Your task to perform on an android device: check android version Image 0: 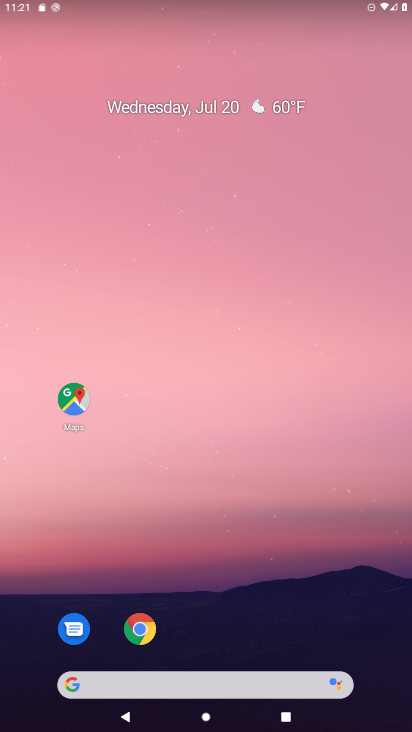
Step 0: drag from (244, 615) to (270, 72)
Your task to perform on an android device: check android version Image 1: 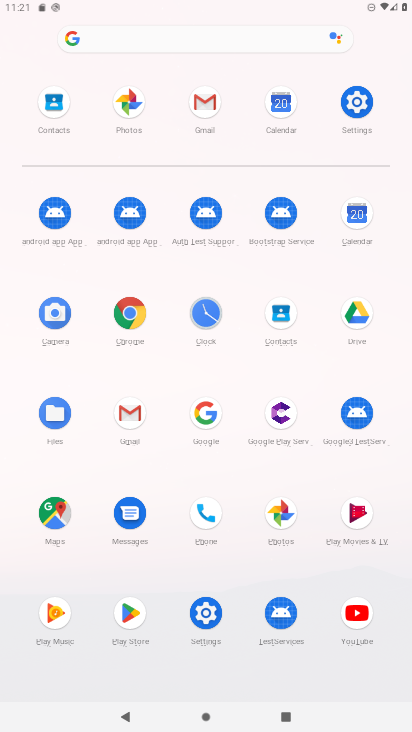
Step 1: click (368, 104)
Your task to perform on an android device: check android version Image 2: 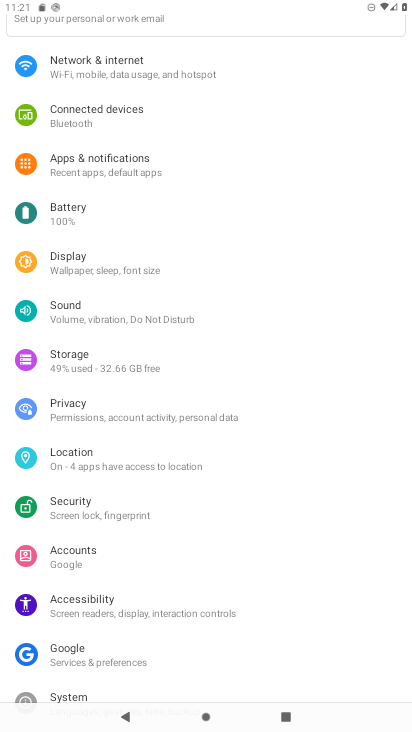
Step 2: drag from (154, 637) to (171, 1)
Your task to perform on an android device: check android version Image 3: 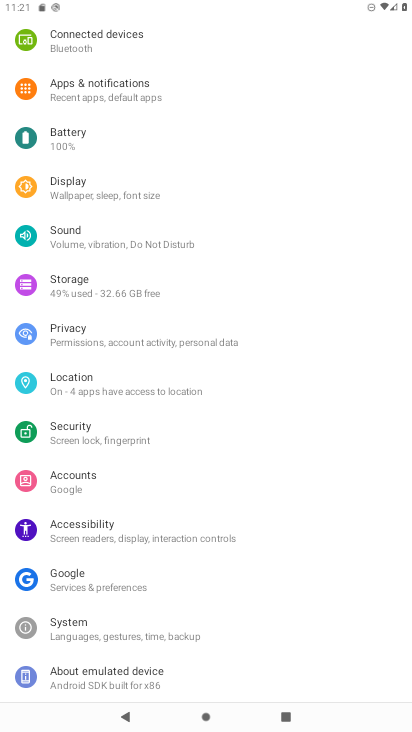
Step 3: drag from (132, 637) to (181, 346)
Your task to perform on an android device: check android version Image 4: 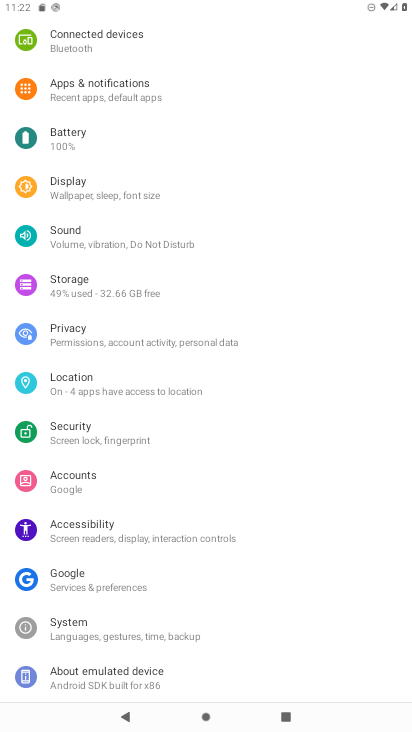
Step 4: click (99, 669)
Your task to perform on an android device: check android version Image 5: 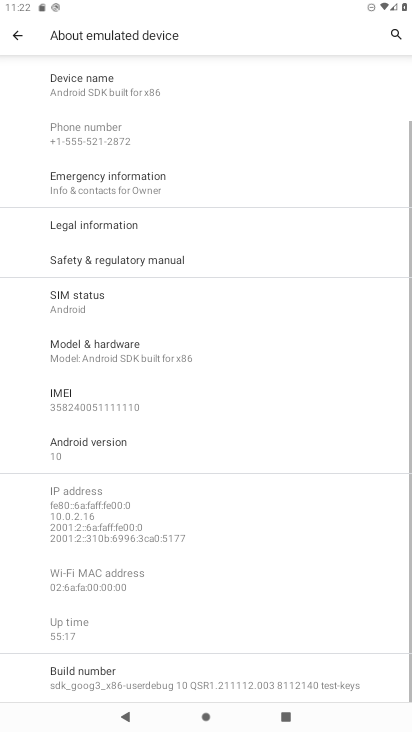
Step 5: click (117, 454)
Your task to perform on an android device: check android version Image 6: 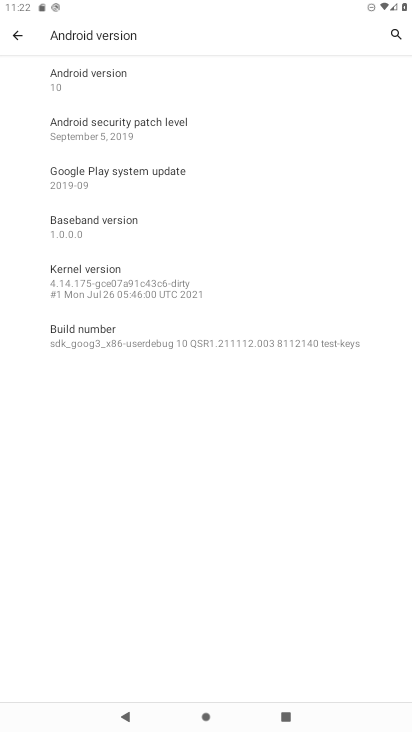
Step 6: click (219, 78)
Your task to perform on an android device: check android version Image 7: 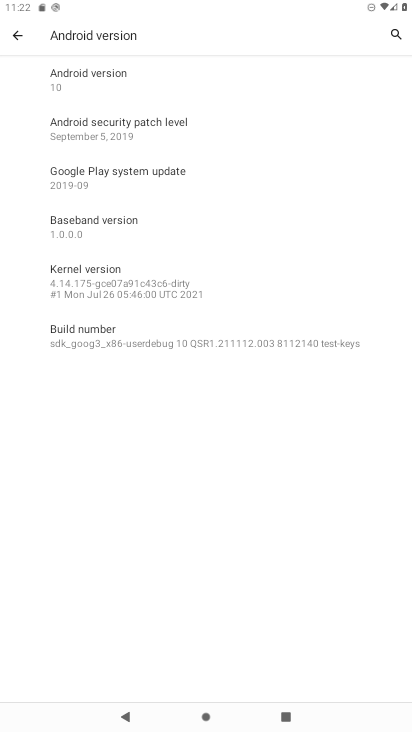
Step 7: task complete